Your task to perform on an android device: Open Google Chrome Image 0: 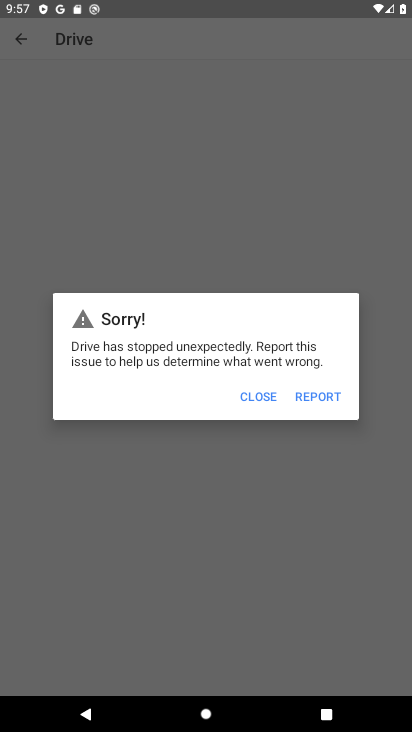
Step 0: press home button
Your task to perform on an android device: Open Google Chrome Image 1: 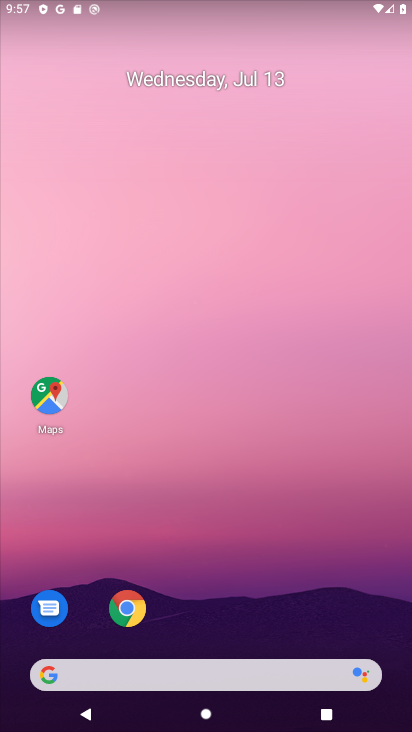
Step 1: click (125, 613)
Your task to perform on an android device: Open Google Chrome Image 2: 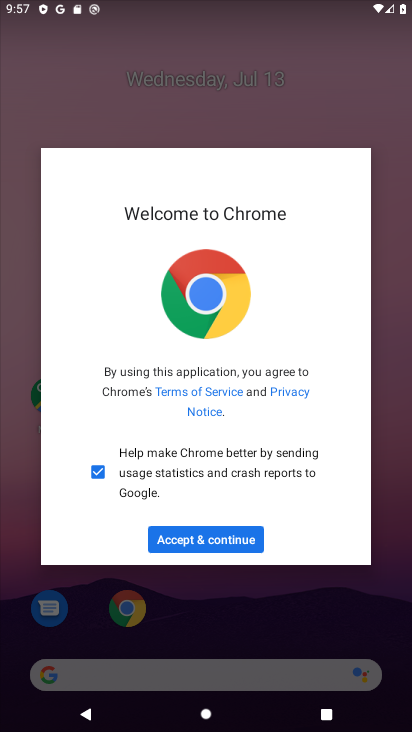
Step 2: click (206, 536)
Your task to perform on an android device: Open Google Chrome Image 3: 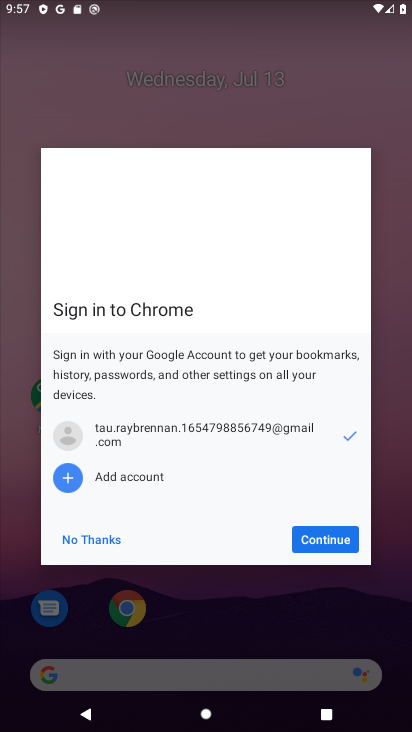
Step 3: click (324, 540)
Your task to perform on an android device: Open Google Chrome Image 4: 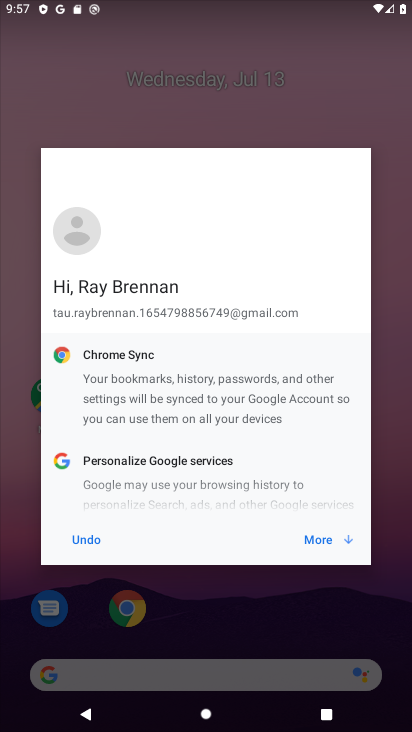
Step 4: click (324, 540)
Your task to perform on an android device: Open Google Chrome Image 5: 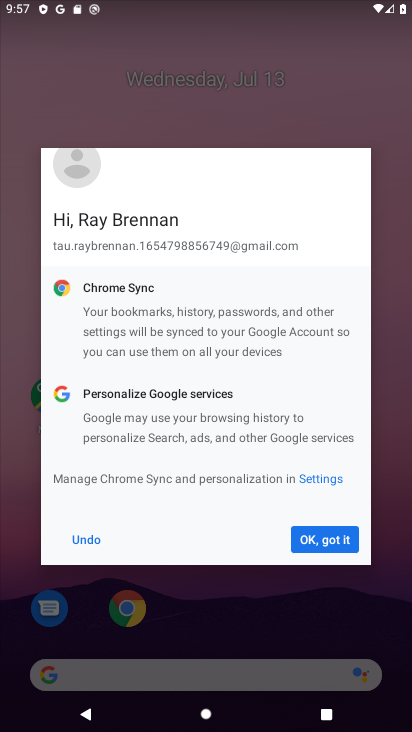
Step 5: click (324, 540)
Your task to perform on an android device: Open Google Chrome Image 6: 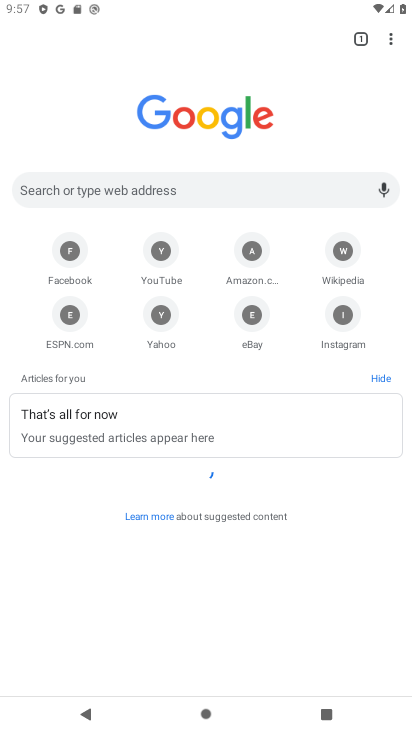
Step 6: task complete